Your task to perform on an android device: change the clock style Image 0: 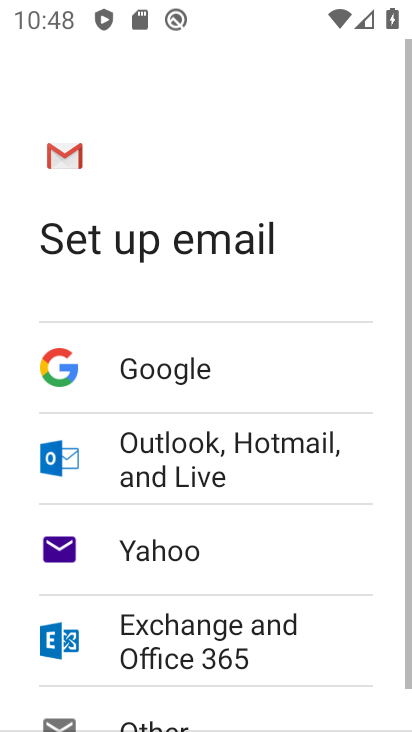
Step 0: press home button
Your task to perform on an android device: change the clock style Image 1: 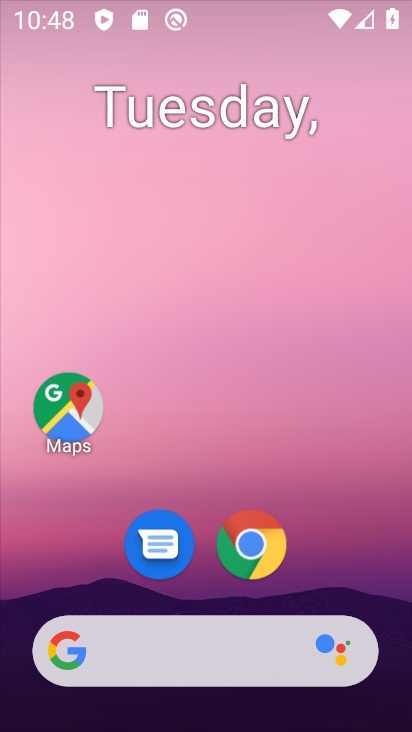
Step 1: drag from (381, 623) to (349, 127)
Your task to perform on an android device: change the clock style Image 2: 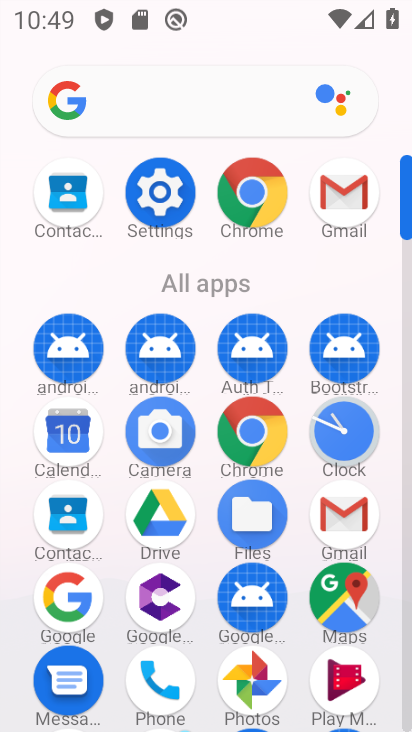
Step 2: click (345, 445)
Your task to perform on an android device: change the clock style Image 3: 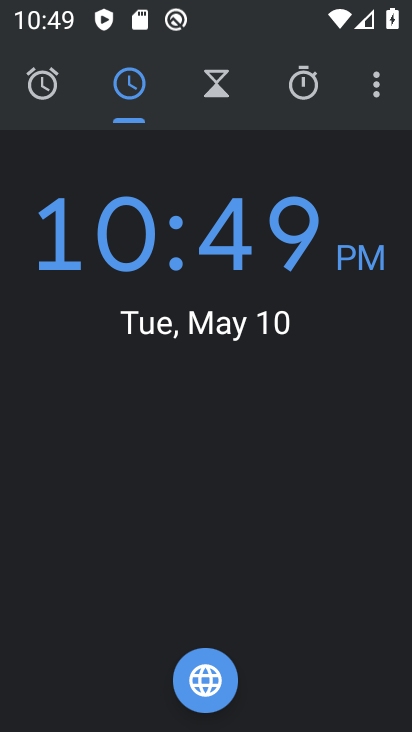
Step 3: click (373, 89)
Your task to perform on an android device: change the clock style Image 4: 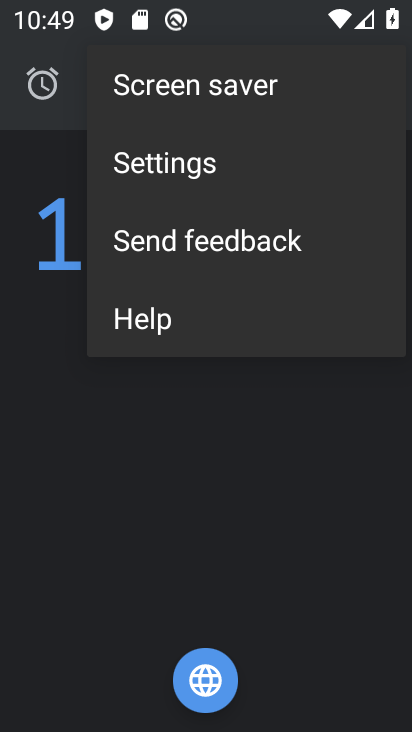
Step 4: click (204, 172)
Your task to perform on an android device: change the clock style Image 5: 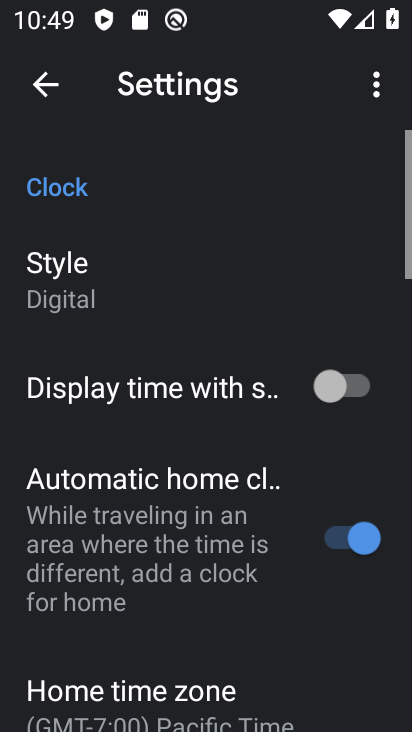
Step 5: click (179, 281)
Your task to perform on an android device: change the clock style Image 6: 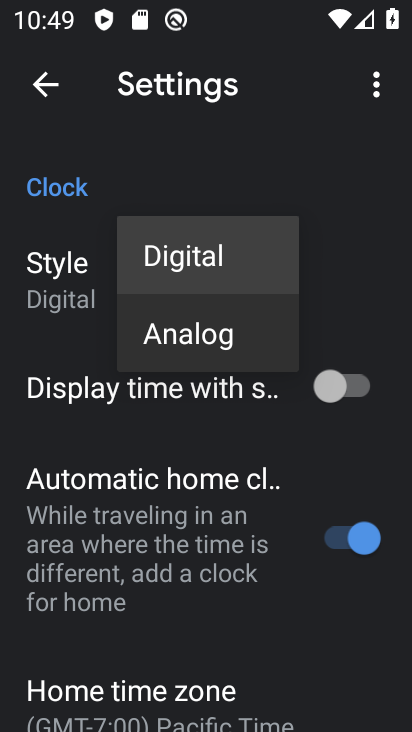
Step 6: click (187, 338)
Your task to perform on an android device: change the clock style Image 7: 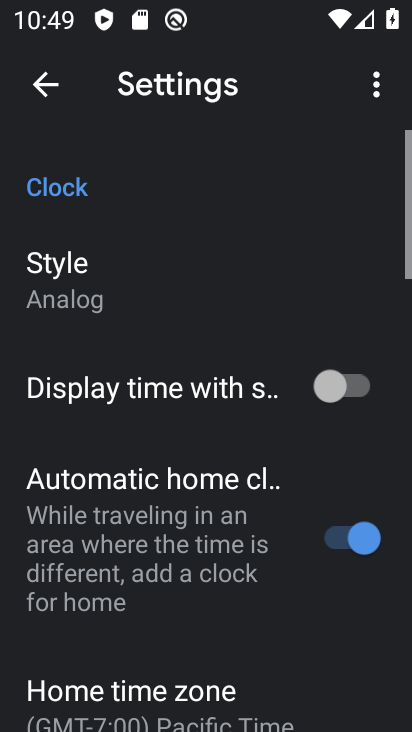
Step 7: task complete